Your task to perform on an android device: delete the emails in spam in the gmail app Image 0: 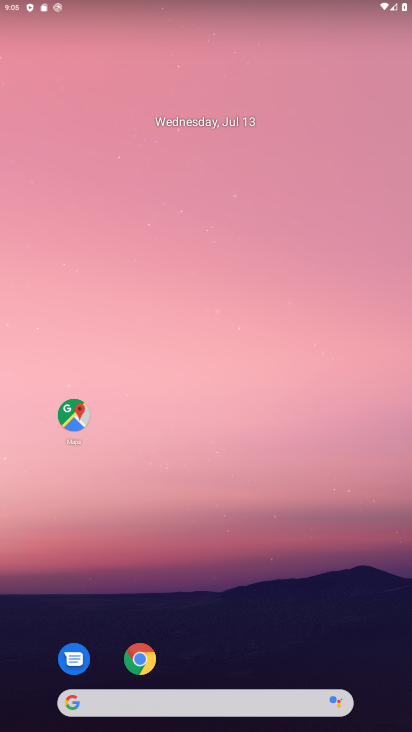
Step 0: drag from (354, 655) to (335, 151)
Your task to perform on an android device: delete the emails in spam in the gmail app Image 1: 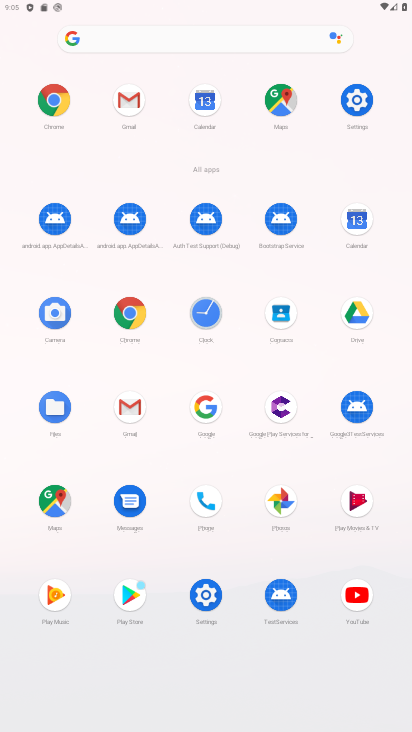
Step 1: click (130, 408)
Your task to perform on an android device: delete the emails in spam in the gmail app Image 2: 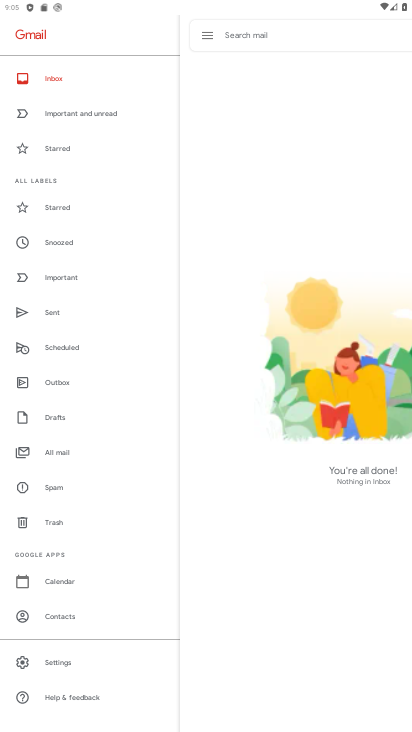
Step 2: click (57, 487)
Your task to perform on an android device: delete the emails in spam in the gmail app Image 3: 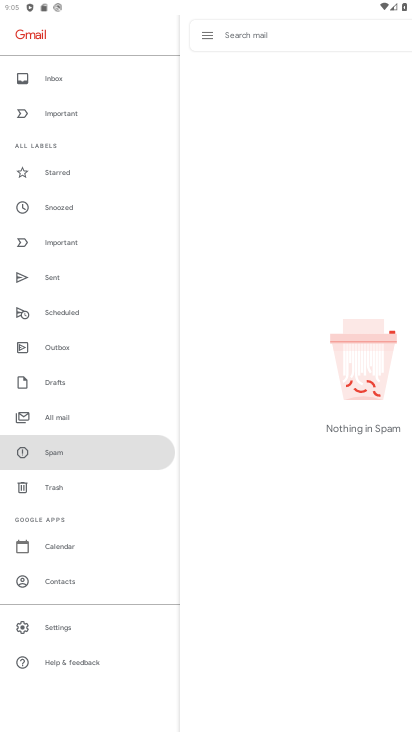
Step 3: task complete